Your task to perform on an android device: open a new tab in the chrome app Image 0: 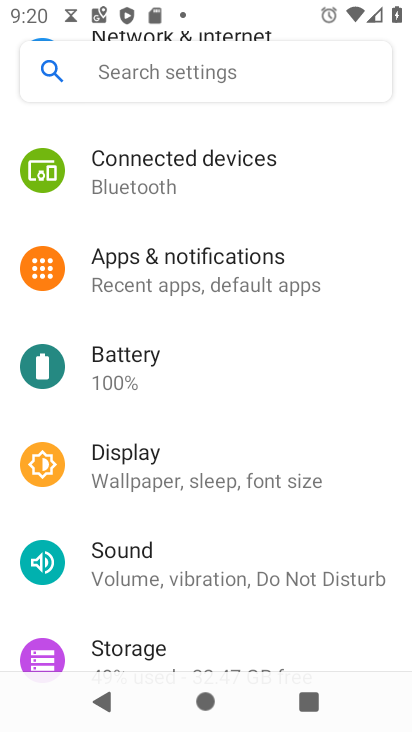
Step 0: press home button
Your task to perform on an android device: open a new tab in the chrome app Image 1: 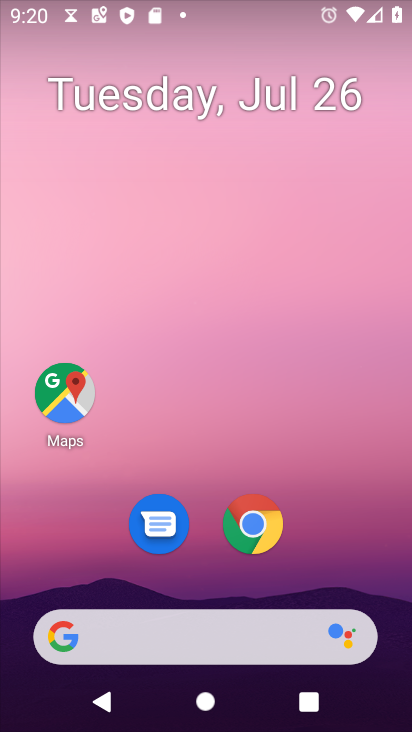
Step 1: click (252, 528)
Your task to perform on an android device: open a new tab in the chrome app Image 2: 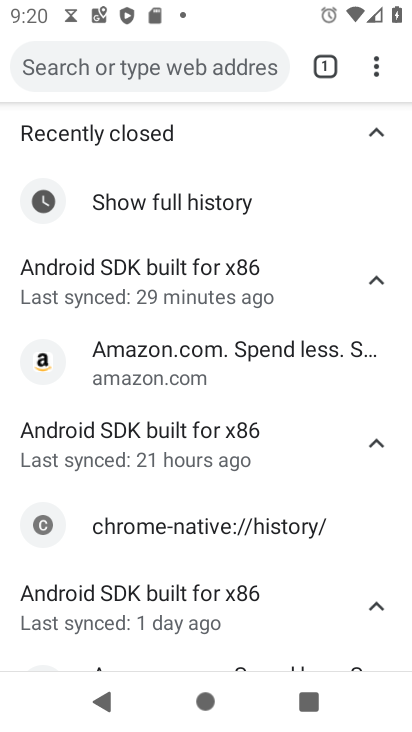
Step 2: task complete